Your task to perform on an android device: Open Wikipedia Image 0: 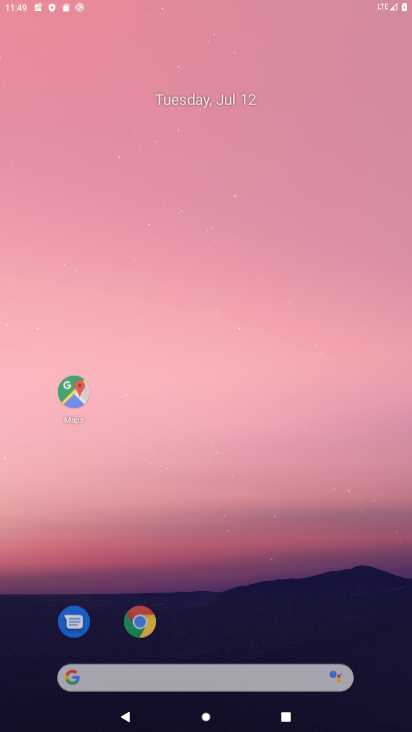
Step 0: press home button
Your task to perform on an android device: Open Wikipedia Image 1: 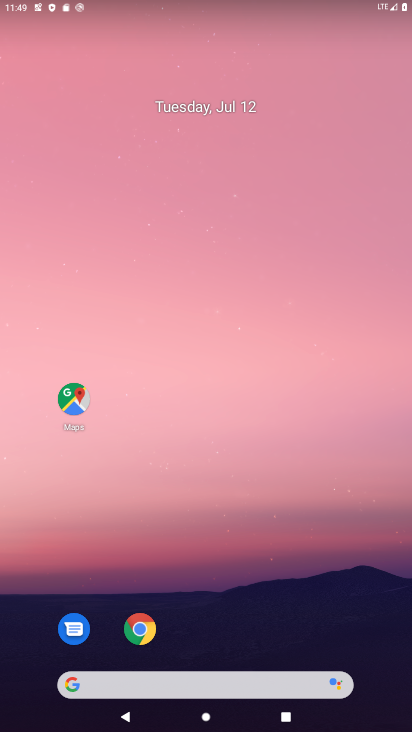
Step 1: click (138, 621)
Your task to perform on an android device: Open Wikipedia Image 2: 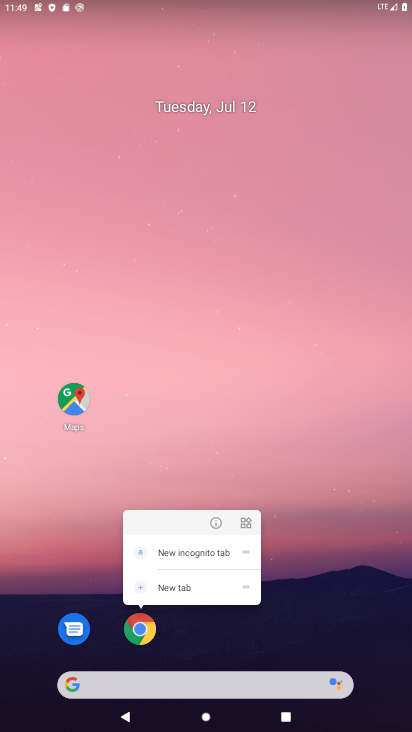
Step 2: click (138, 621)
Your task to perform on an android device: Open Wikipedia Image 3: 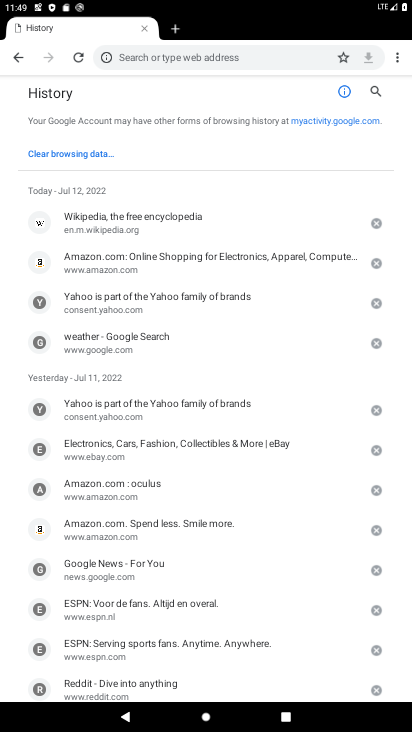
Step 3: click (177, 27)
Your task to perform on an android device: Open Wikipedia Image 4: 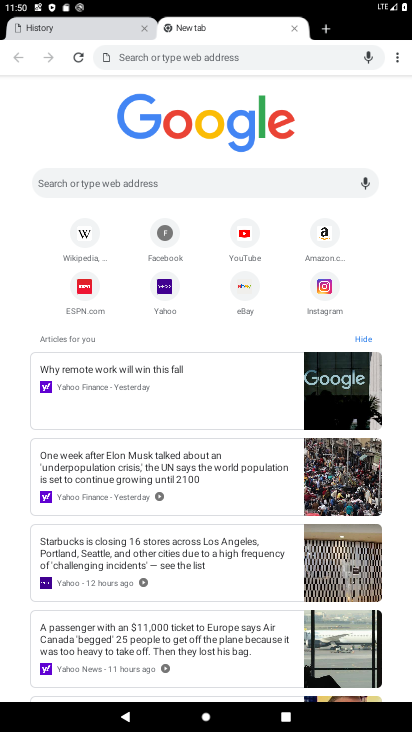
Step 4: click (80, 231)
Your task to perform on an android device: Open Wikipedia Image 5: 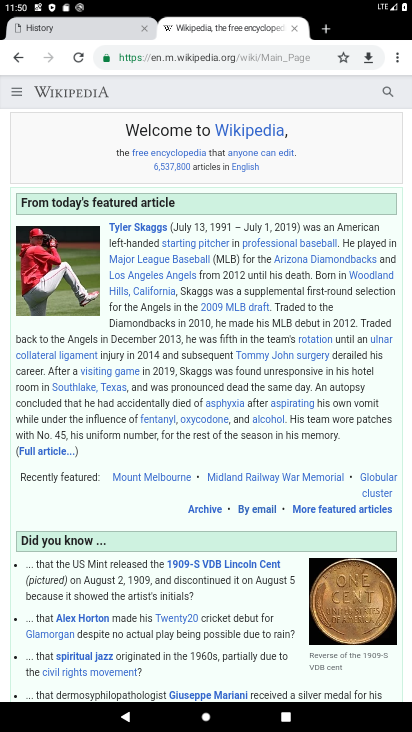
Step 5: task complete